Your task to perform on an android device: turn on location history Image 0: 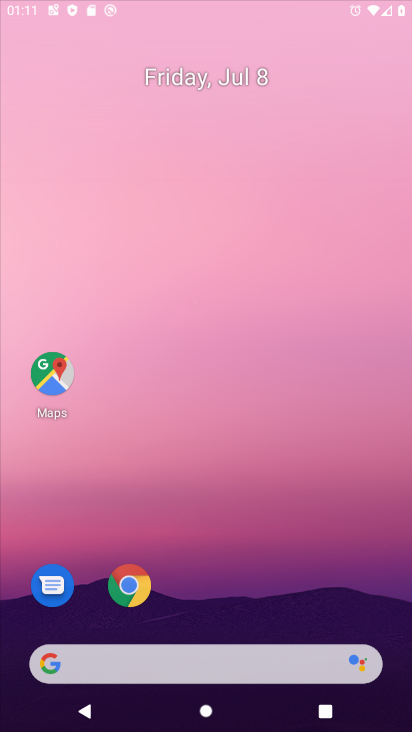
Step 0: click (194, 132)
Your task to perform on an android device: turn on location history Image 1: 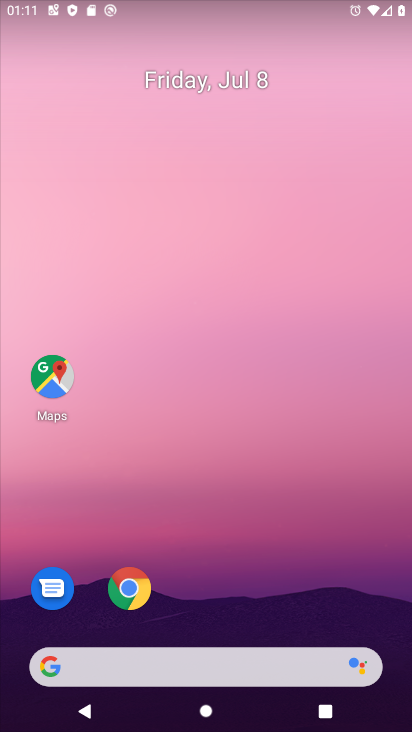
Step 1: drag from (191, 593) to (234, 47)
Your task to perform on an android device: turn on location history Image 2: 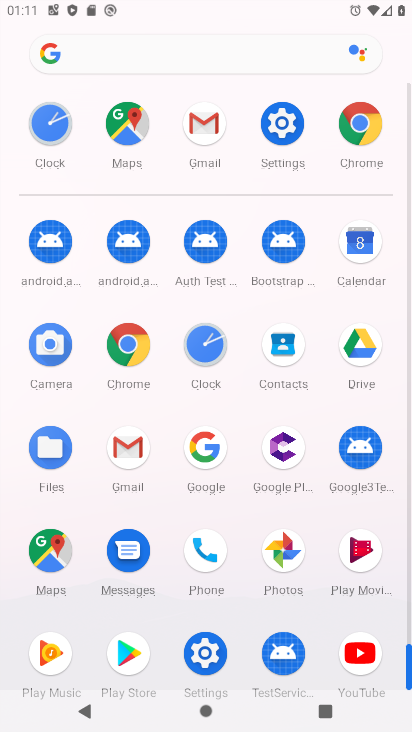
Step 2: click (285, 139)
Your task to perform on an android device: turn on location history Image 3: 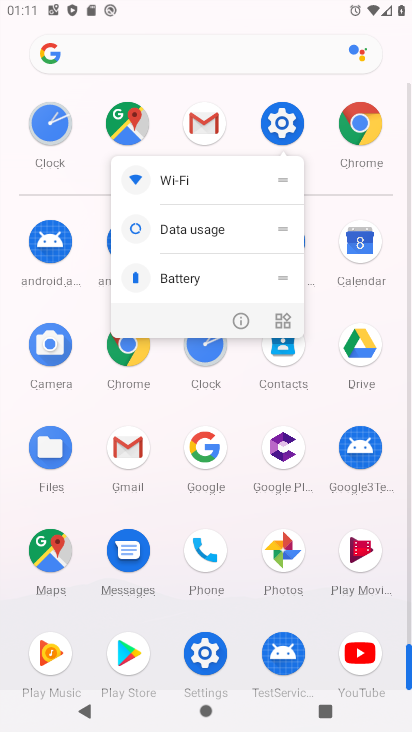
Step 3: click (241, 314)
Your task to perform on an android device: turn on location history Image 4: 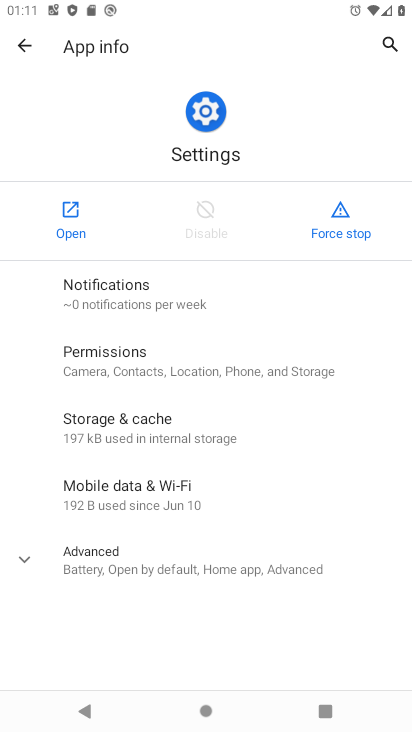
Step 4: click (71, 218)
Your task to perform on an android device: turn on location history Image 5: 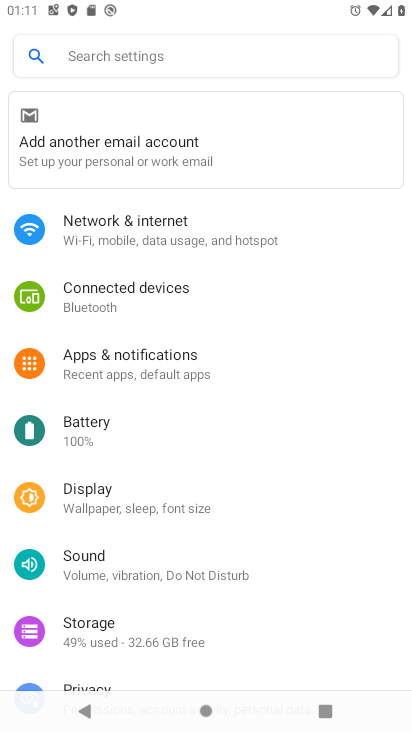
Step 5: click (141, 645)
Your task to perform on an android device: turn on location history Image 6: 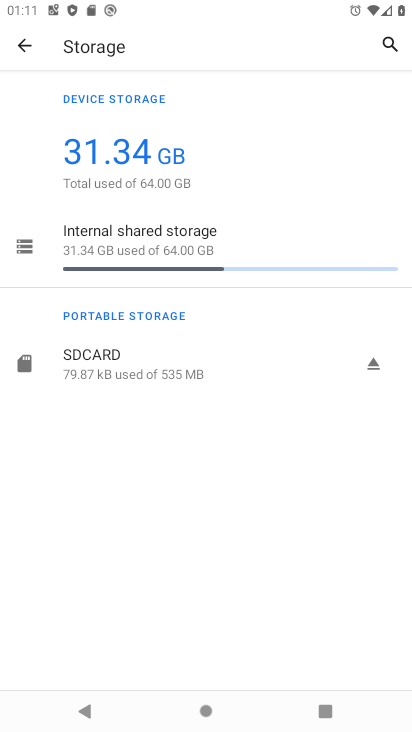
Step 6: drag from (143, 635) to (119, 294)
Your task to perform on an android device: turn on location history Image 7: 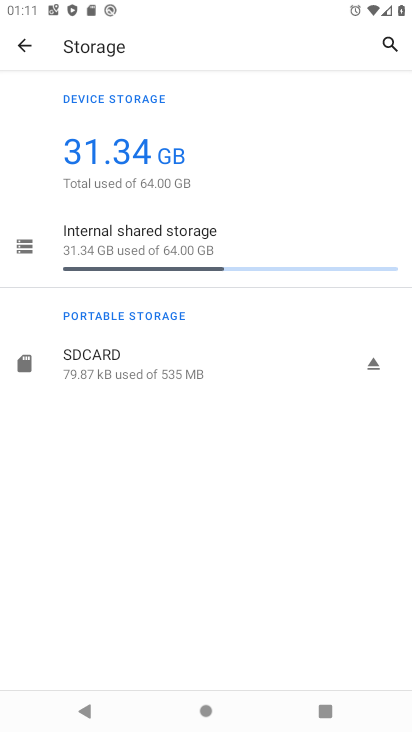
Step 7: click (17, 45)
Your task to perform on an android device: turn on location history Image 8: 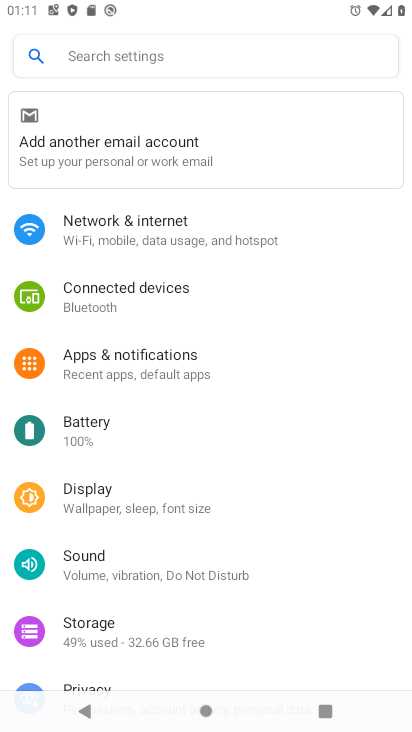
Step 8: drag from (119, 636) to (127, 289)
Your task to perform on an android device: turn on location history Image 9: 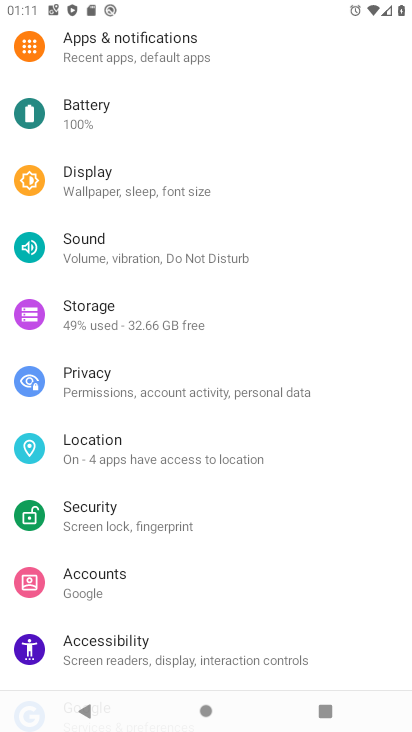
Step 9: click (100, 438)
Your task to perform on an android device: turn on location history Image 10: 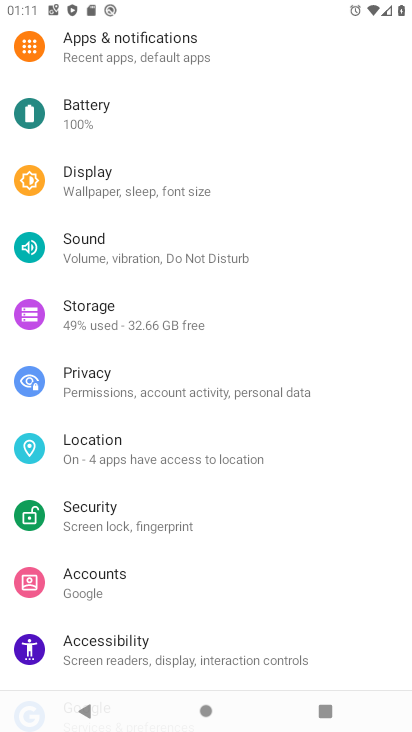
Step 10: click (100, 438)
Your task to perform on an android device: turn on location history Image 11: 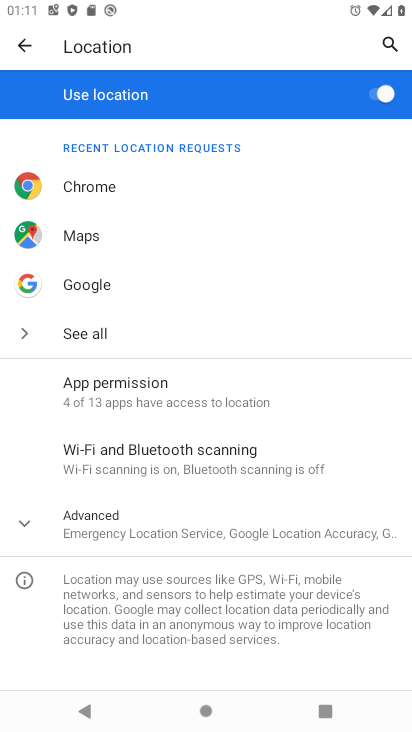
Step 11: click (81, 530)
Your task to perform on an android device: turn on location history Image 12: 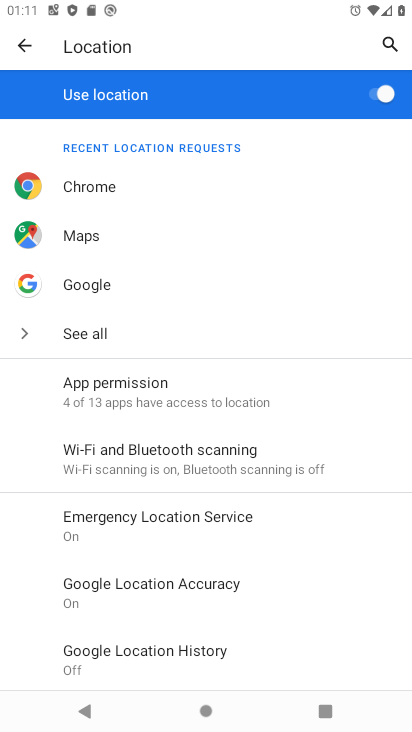
Step 12: drag from (193, 635) to (175, 288)
Your task to perform on an android device: turn on location history Image 13: 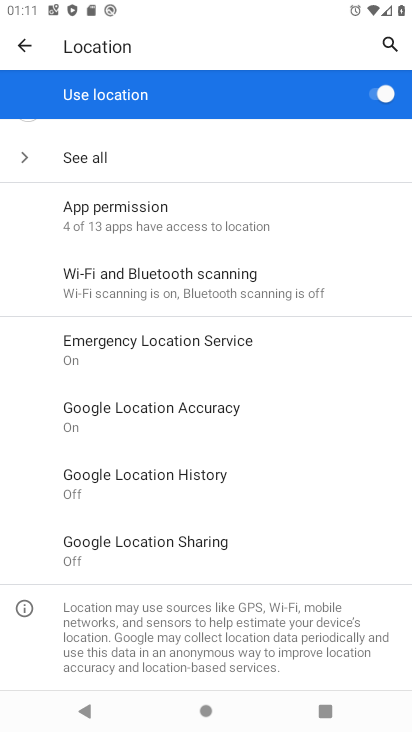
Step 13: click (190, 490)
Your task to perform on an android device: turn on location history Image 14: 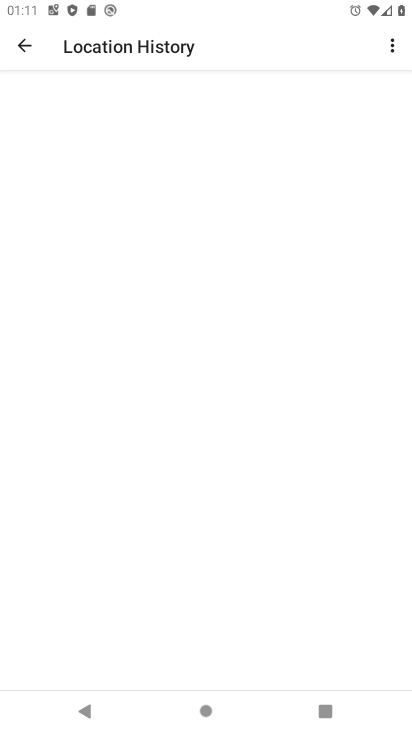
Step 14: drag from (221, 496) to (212, 246)
Your task to perform on an android device: turn on location history Image 15: 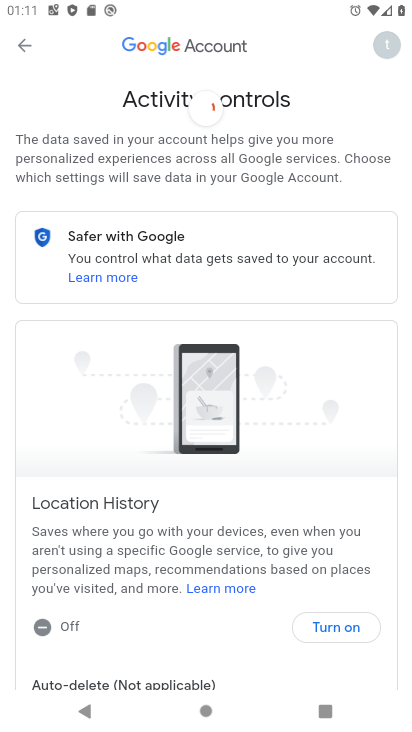
Step 15: drag from (256, 485) to (227, 303)
Your task to perform on an android device: turn on location history Image 16: 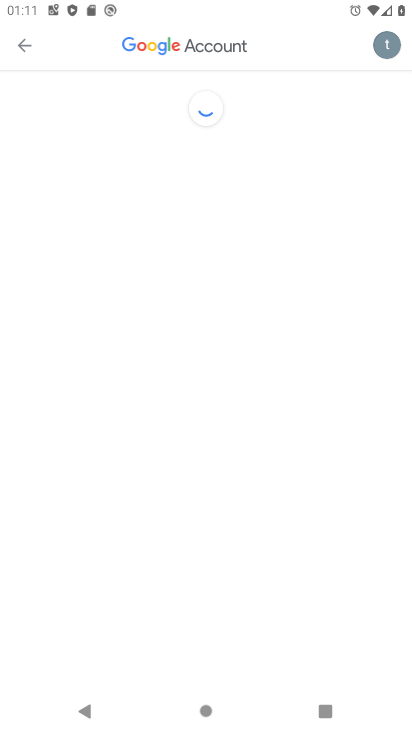
Step 16: drag from (205, 589) to (103, 141)
Your task to perform on an android device: turn on location history Image 17: 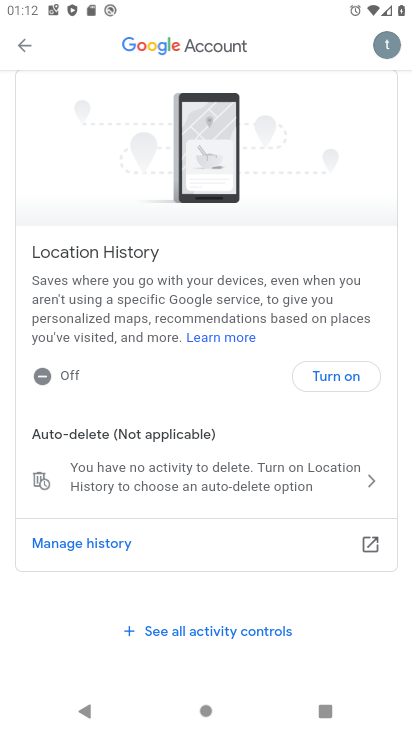
Step 17: click (327, 370)
Your task to perform on an android device: turn on location history Image 18: 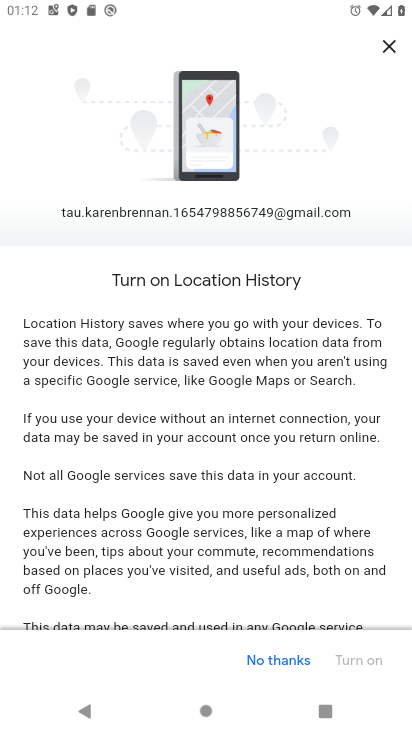
Step 18: drag from (292, 569) to (313, 108)
Your task to perform on an android device: turn on location history Image 19: 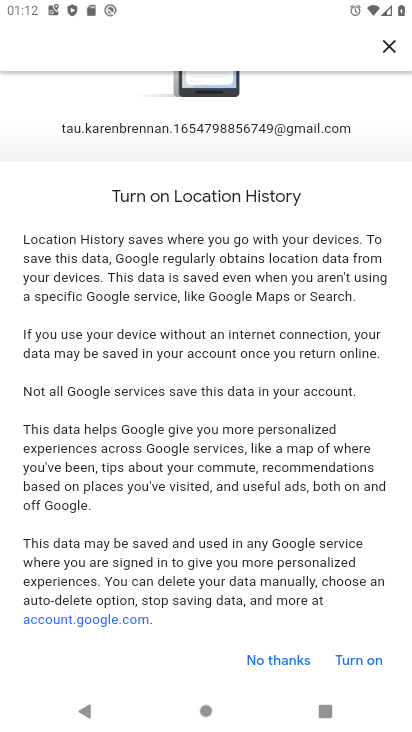
Step 19: drag from (198, 570) to (217, 370)
Your task to perform on an android device: turn on location history Image 20: 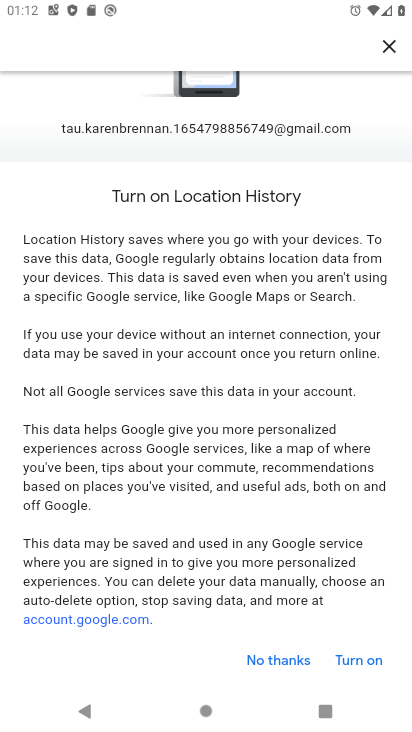
Step 20: click (338, 668)
Your task to perform on an android device: turn on location history Image 21: 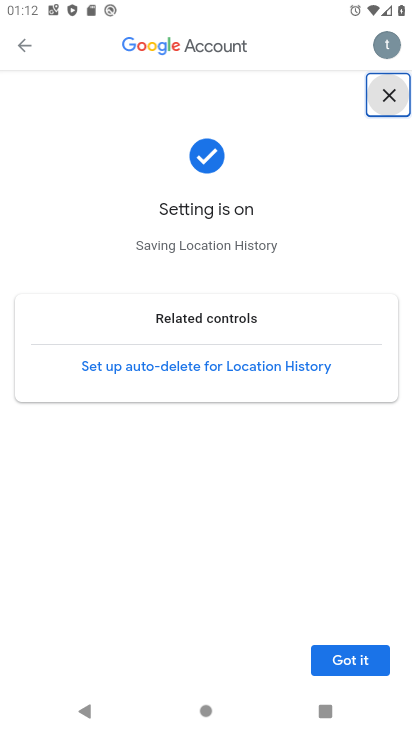
Step 21: drag from (194, 627) to (179, 427)
Your task to perform on an android device: turn on location history Image 22: 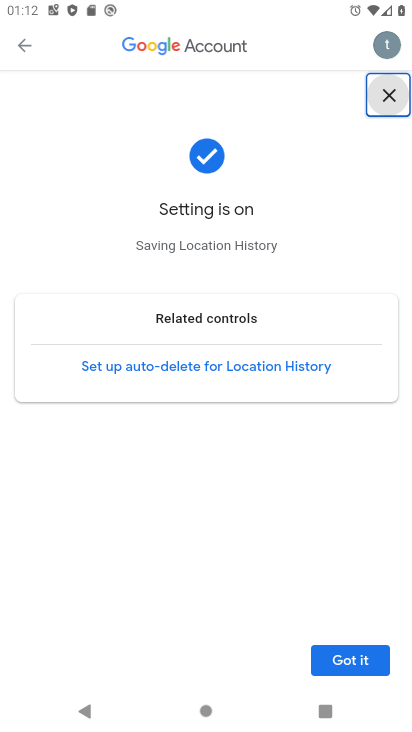
Step 22: click (340, 658)
Your task to perform on an android device: turn on location history Image 23: 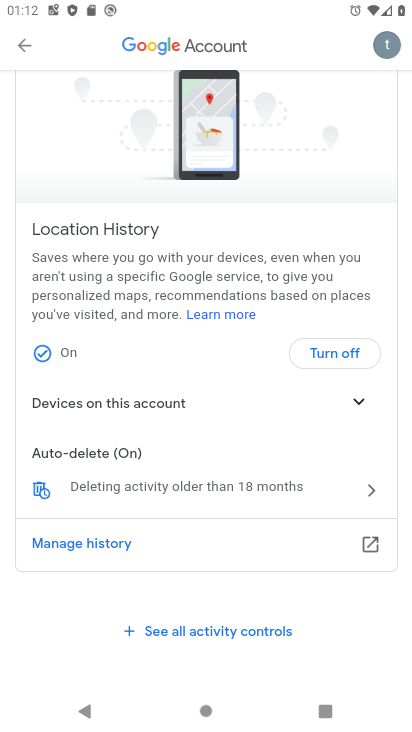
Step 23: task complete